Your task to perform on an android device: Empty the shopping cart on amazon. Search for bose soundlink mini on amazon, select the first entry, add it to the cart, then select checkout. Image 0: 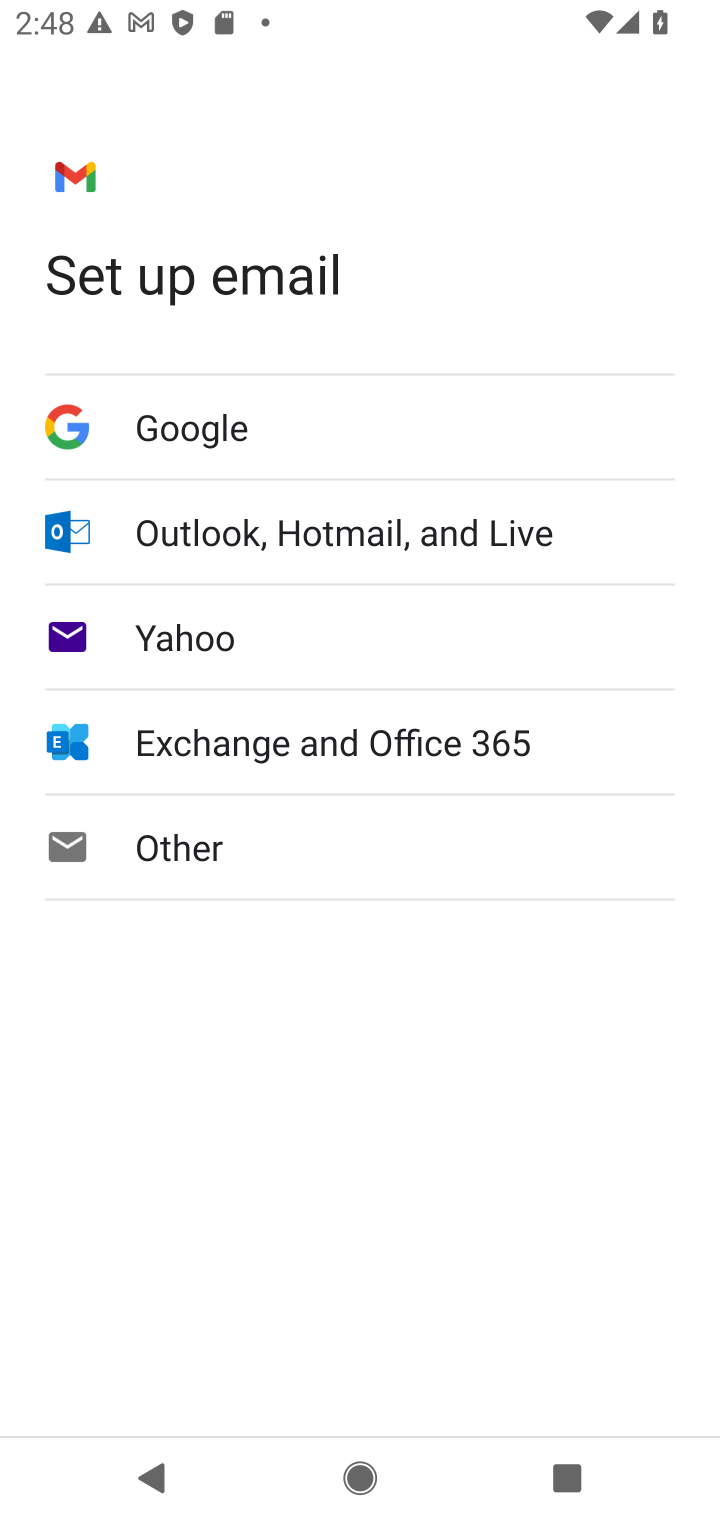
Step 0: press home button
Your task to perform on an android device: Empty the shopping cart on amazon. Search for bose soundlink mini on amazon, select the first entry, add it to the cart, then select checkout. Image 1: 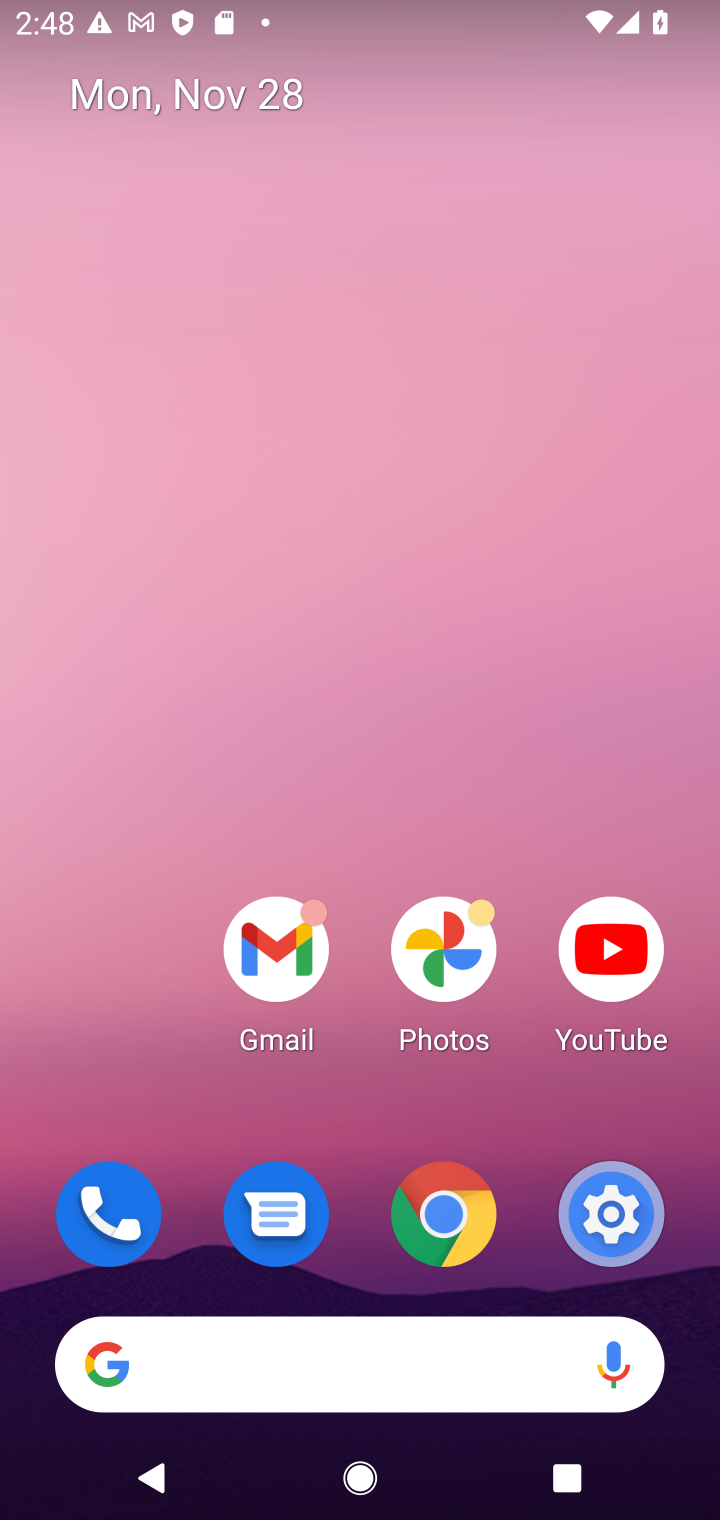
Step 1: click (419, 1321)
Your task to perform on an android device: Empty the shopping cart on amazon. Search for bose soundlink mini on amazon, select the first entry, add it to the cart, then select checkout. Image 2: 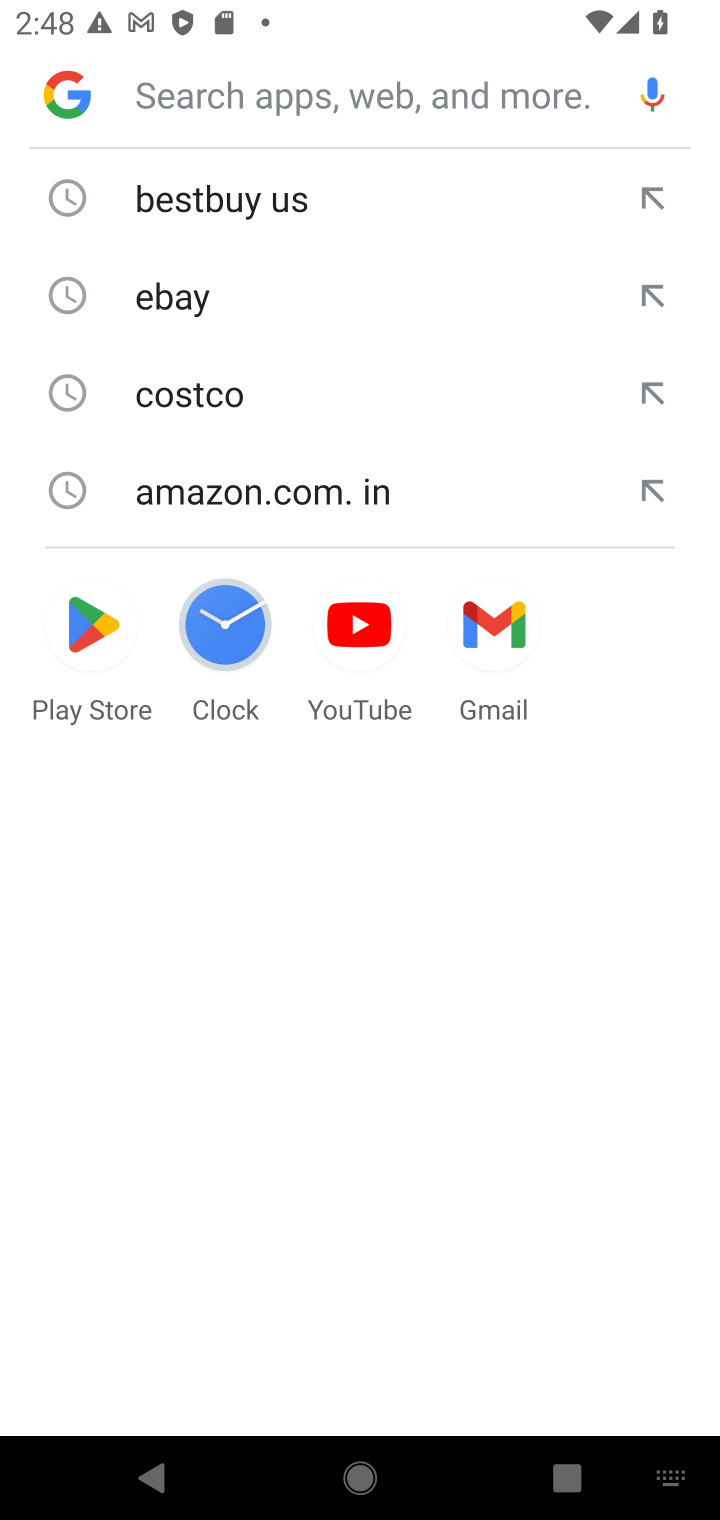
Step 2: type "amazon"
Your task to perform on an android device: Empty the shopping cart on amazon. Search for bose soundlink mini on amazon, select the first entry, add it to the cart, then select checkout. Image 3: 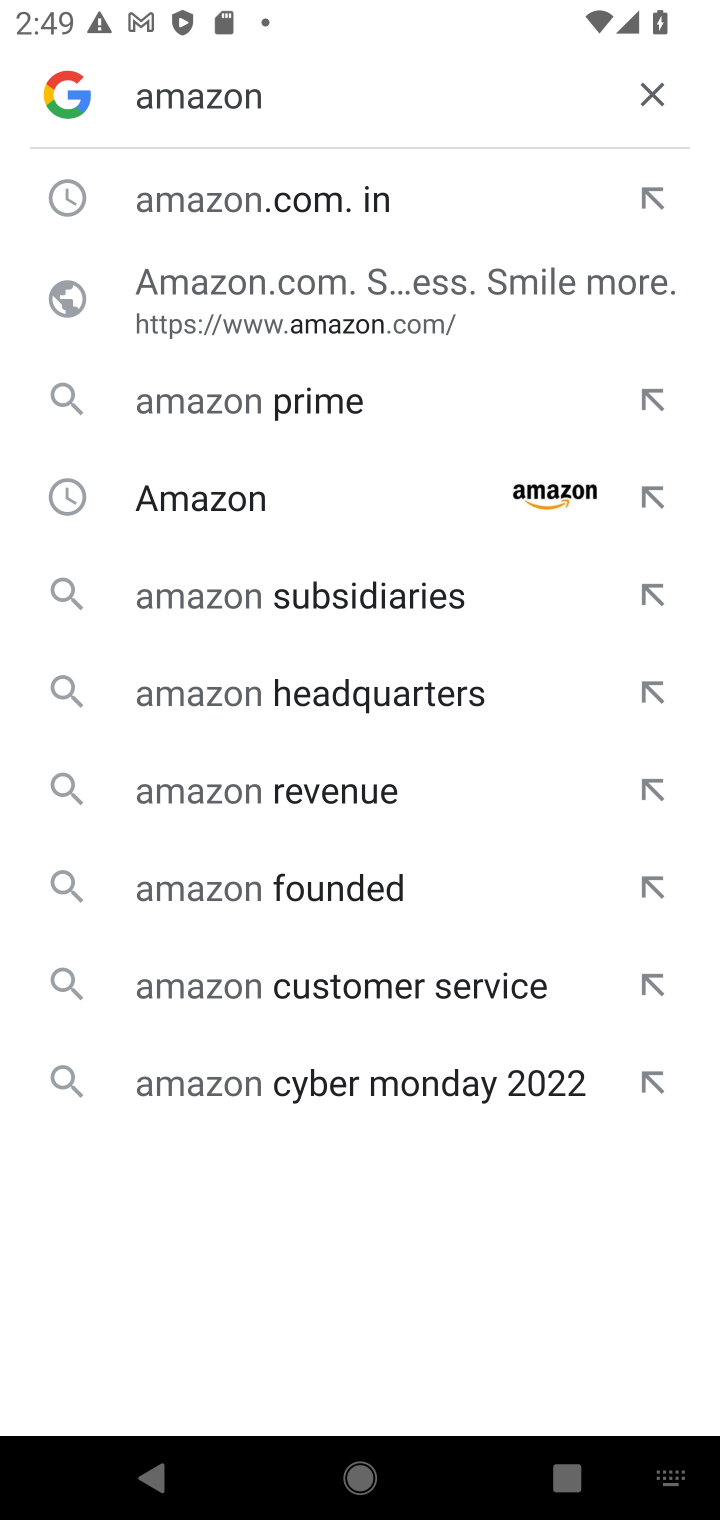
Step 3: click (259, 506)
Your task to perform on an android device: Empty the shopping cart on amazon. Search for bose soundlink mini on amazon, select the first entry, add it to the cart, then select checkout. Image 4: 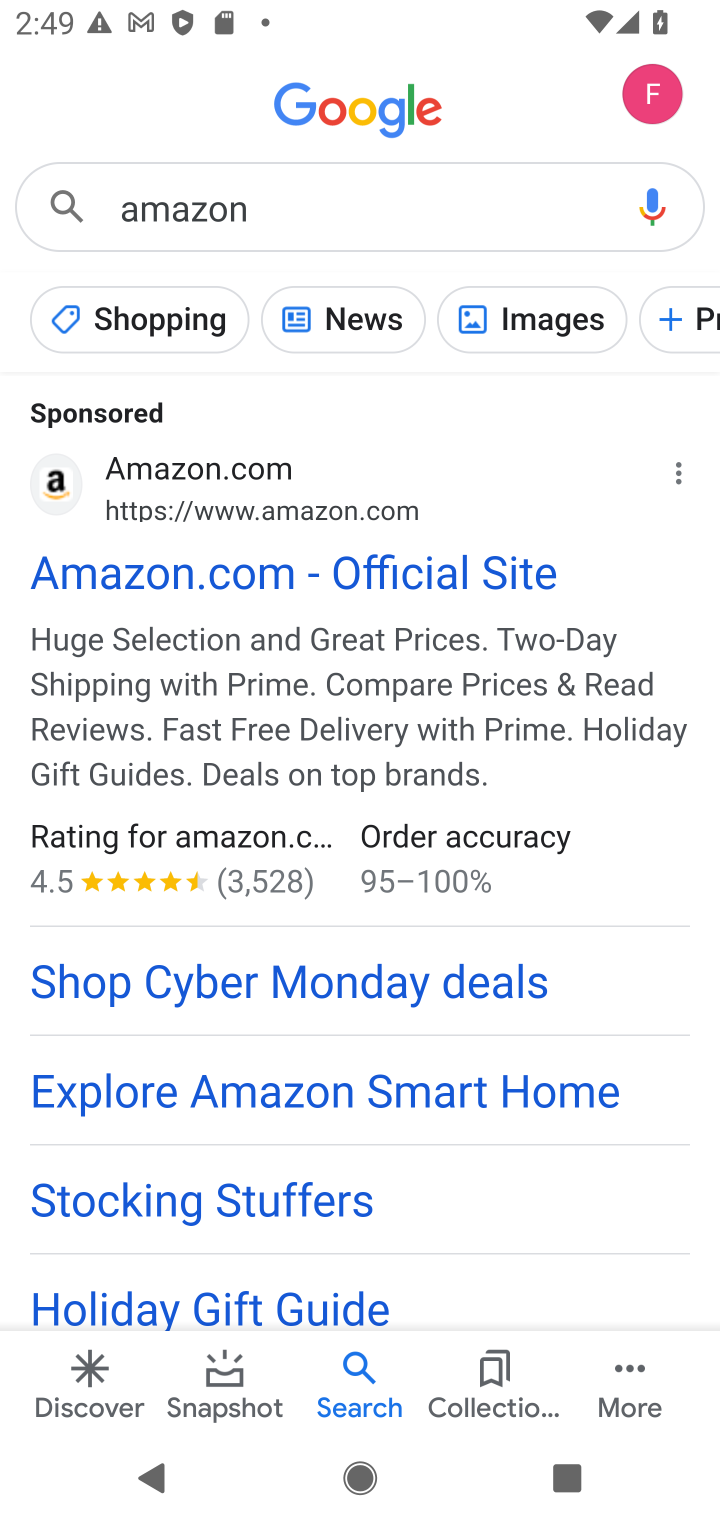
Step 4: click (211, 575)
Your task to perform on an android device: Empty the shopping cart on amazon. Search for bose soundlink mini on amazon, select the first entry, add it to the cart, then select checkout. Image 5: 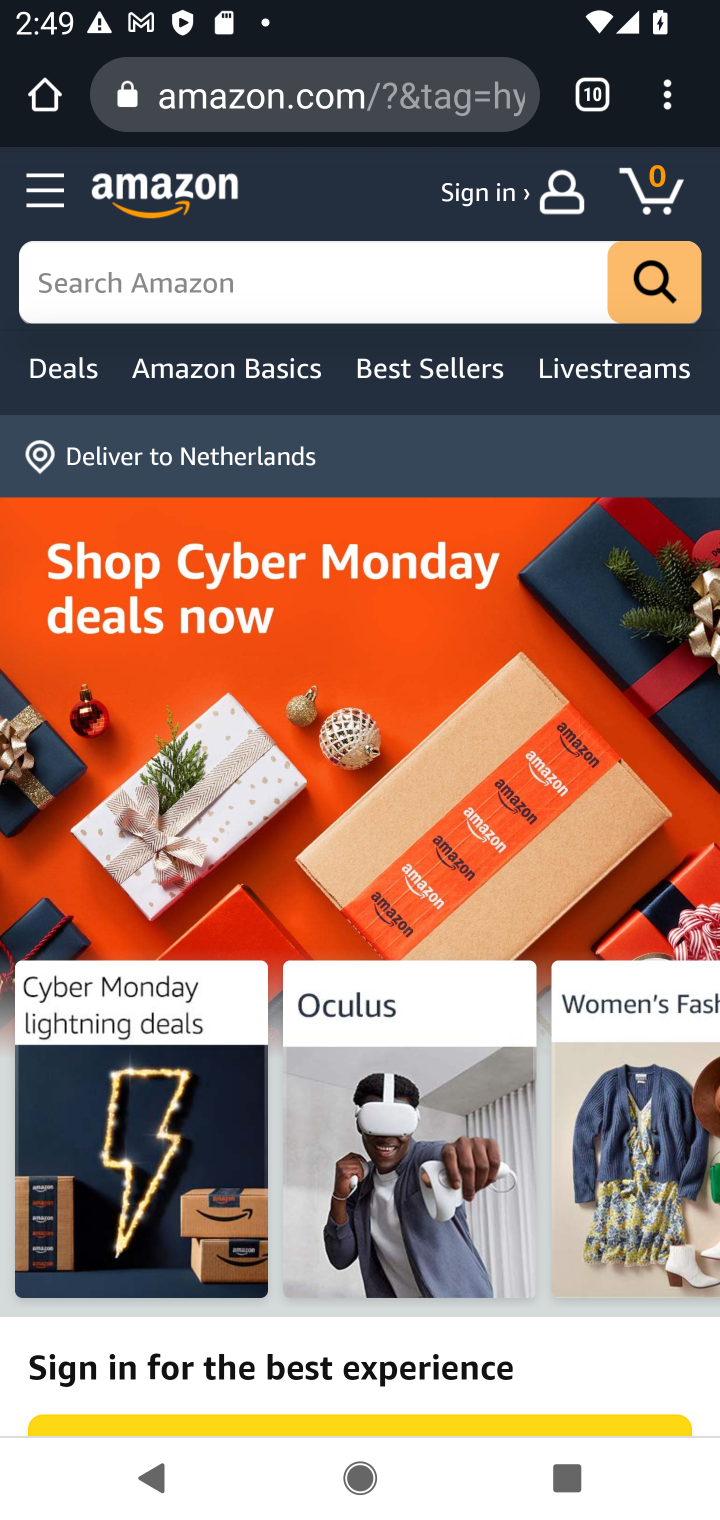
Step 5: click (213, 267)
Your task to perform on an android device: Empty the shopping cart on amazon. Search for bose soundlink mini on amazon, select the first entry, add it to the cart, then select checkout. Image 6: 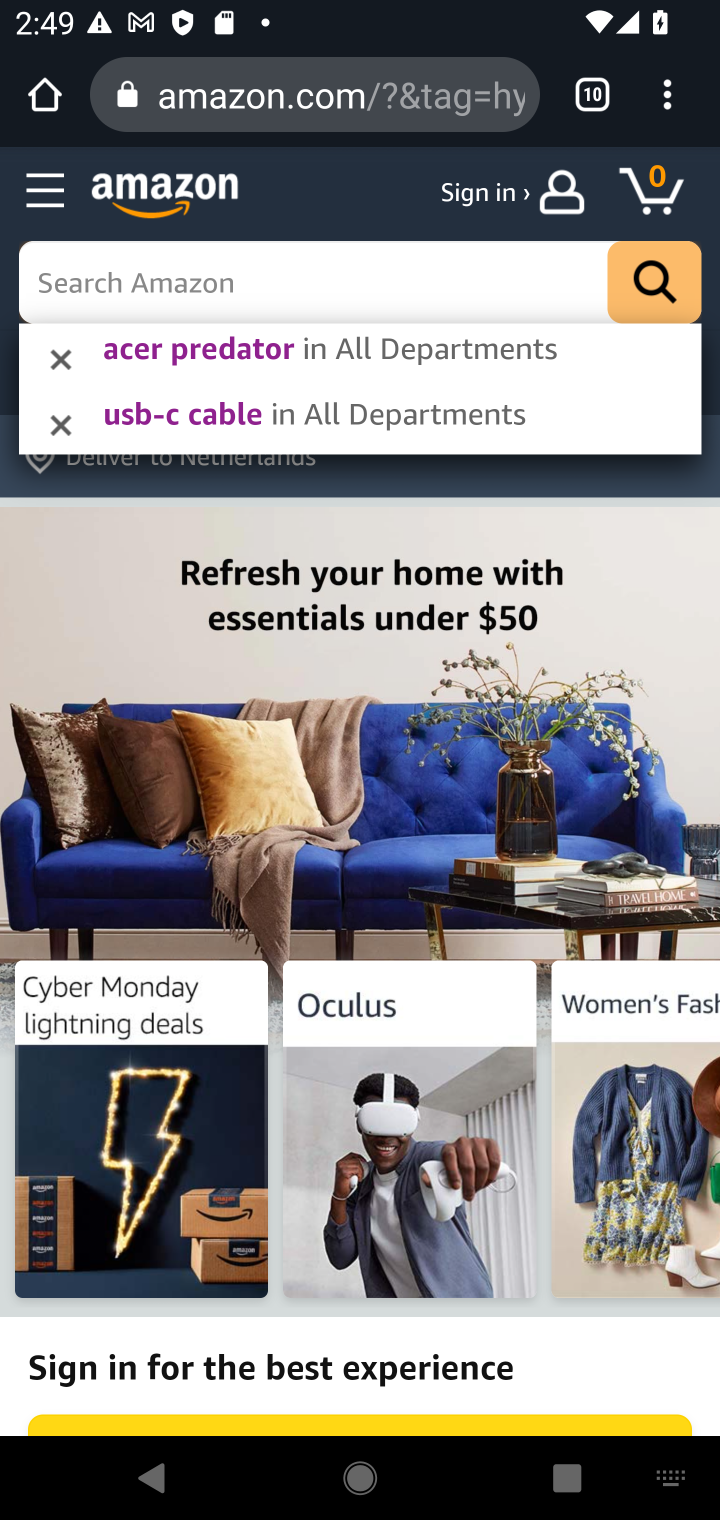
Step 6: type "soundlink"
Your task to perform on an android device: Empty the shopping cart on amazon. Search for bose soundlink mini on amazon, select the first entry, add it to the cart, then select checkout. Image 7: 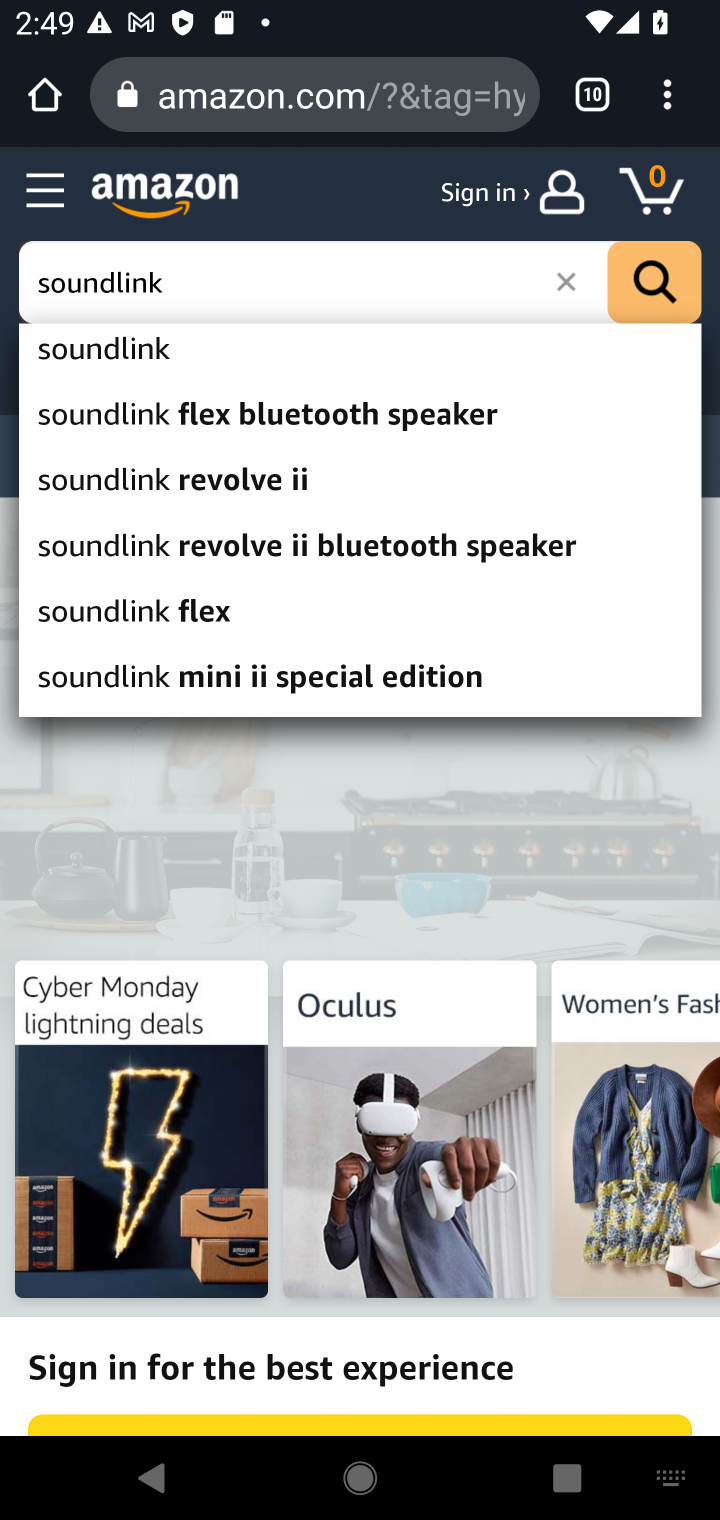
Step 7: click (229, 362)
Your task to perform on an android device: Empty the shopping cart on amazon. Search for bose soundlink mini on amazon, select the first entry, add it to the cart, then select checkout. Image 8: 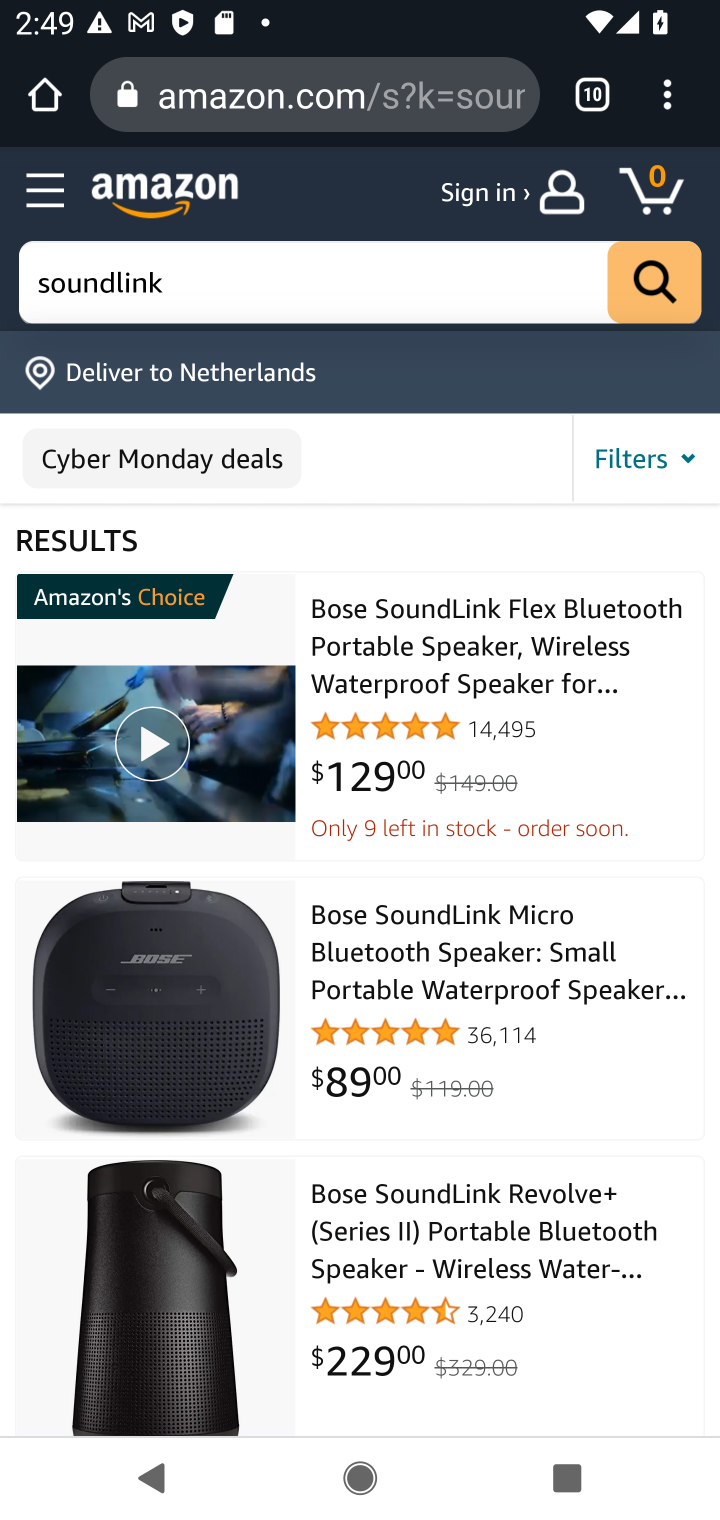
Step 8: click (395, 650)
Your task to perform on an android device: Empty the shopping cart on amazon. Search for bose soundlink mini on amazon, select the first entry, add it to the cart, then select checkout. Image 9: 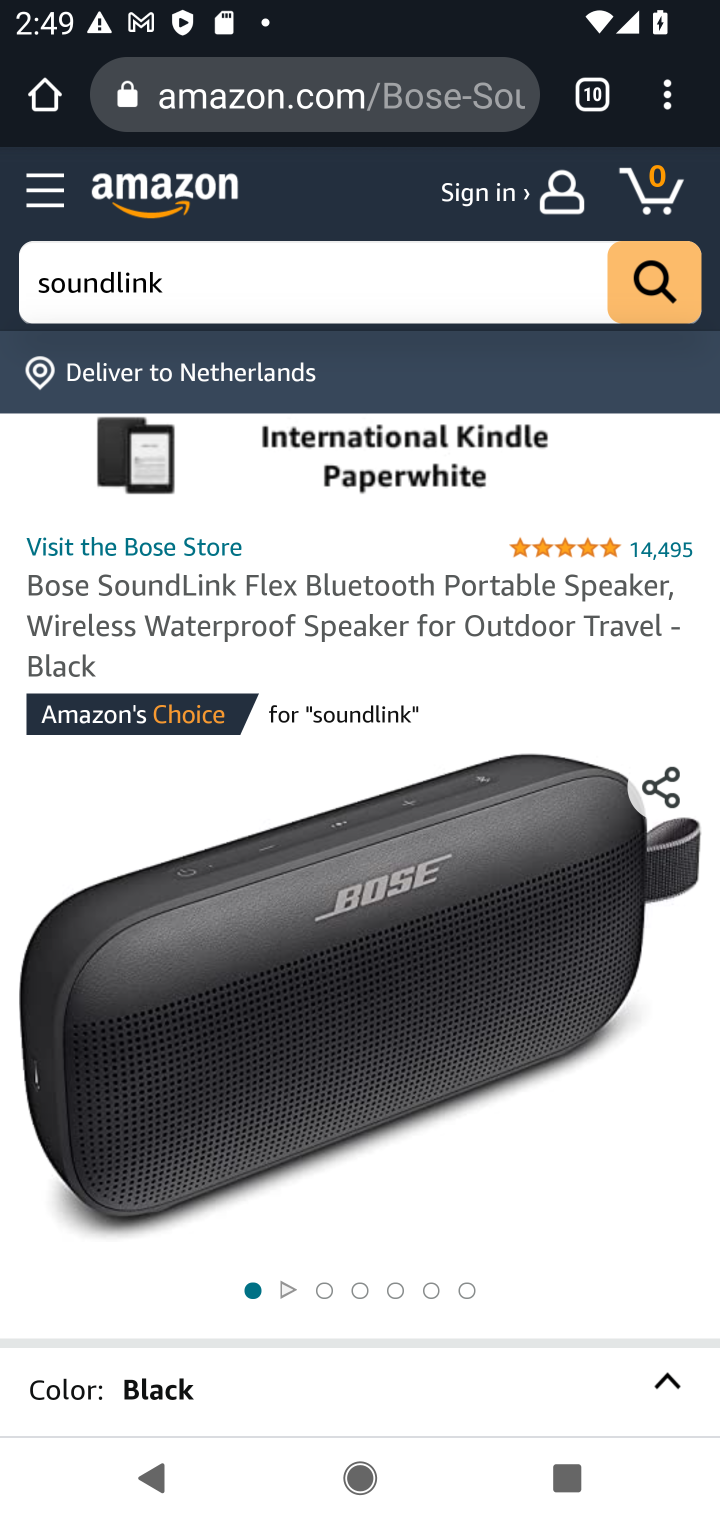
Step 9: task complete